Your task to perform on an android device: Open sound settings Image 0: 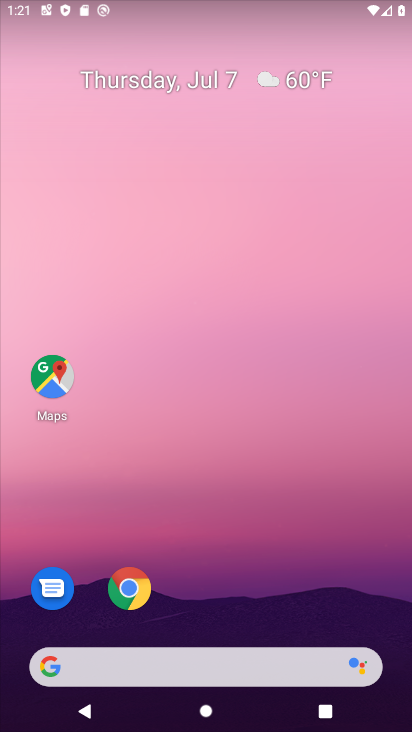
Step 0: drag from (233, 615) to (227, 234)
Your task to perform on an android device: Open sound settings Image 1: 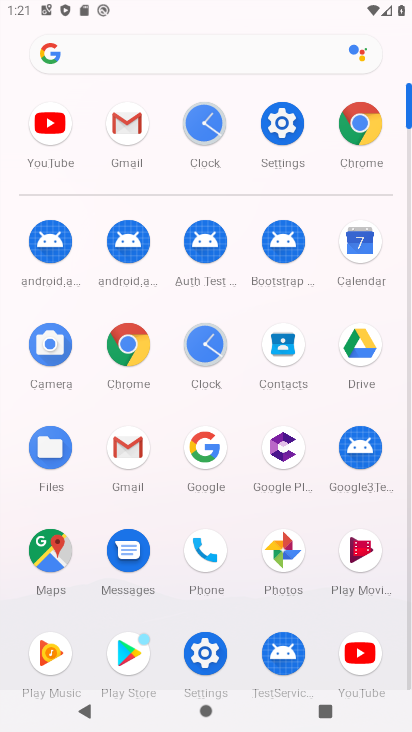
Step 1: click (283, 117)
Your task to perform on an android device: Open sound settings Image 2: 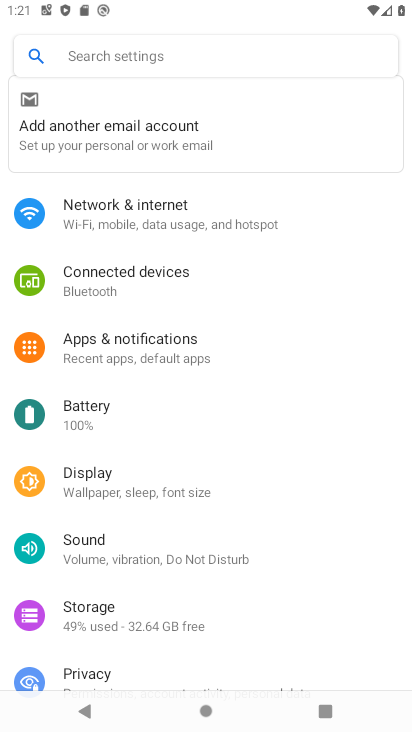
Step 2: click (113, 535)
Your task to perform on an android device: Open sound settings Image 3: 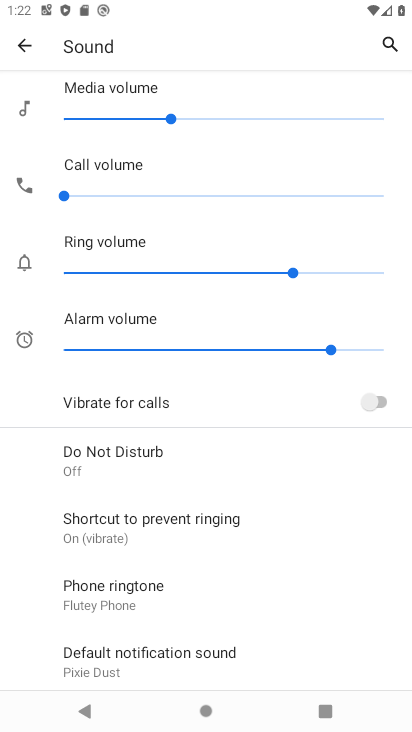
Step 3: task complete